Your task to perform on an android device: What is the recent news? Image 0: 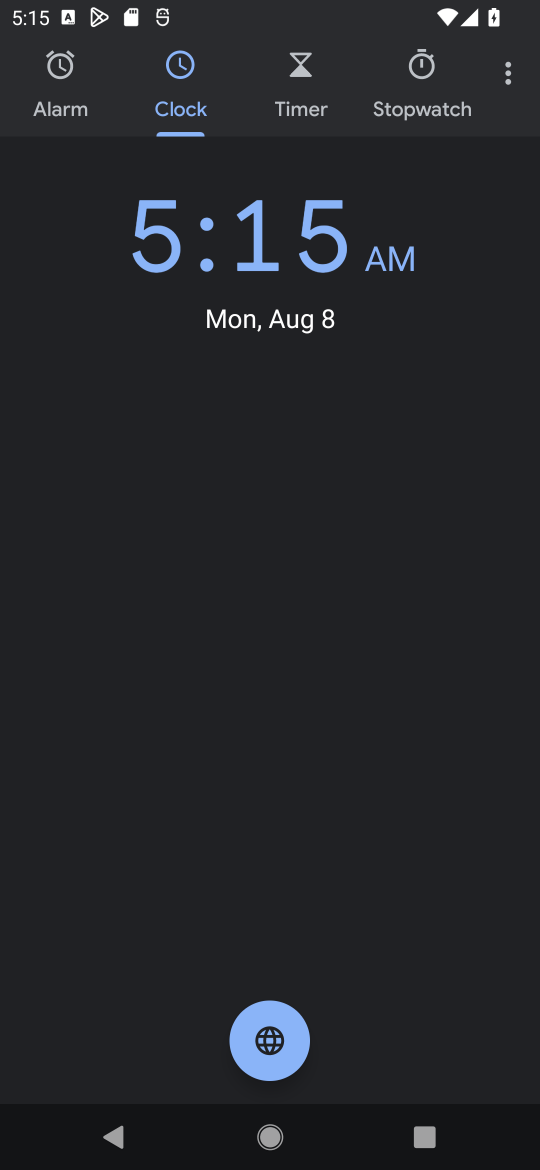
Step 0: press home button
Your task to perform on an android device: What is the recent news? Image 1: 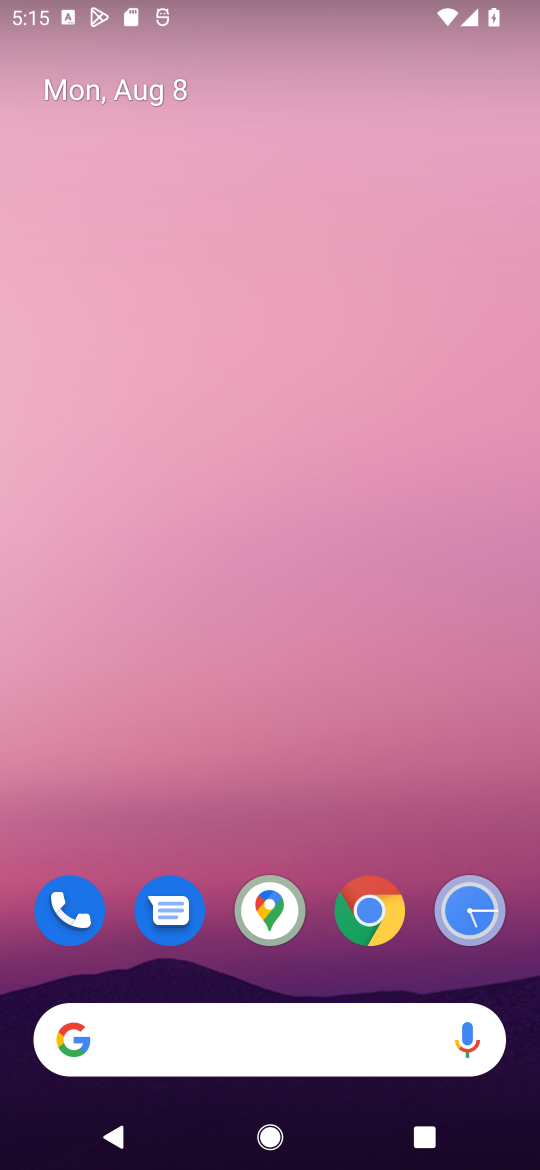
Step 1: click (199, 1033)
Your task to perform on an android device: What is the recent news? Image 2: 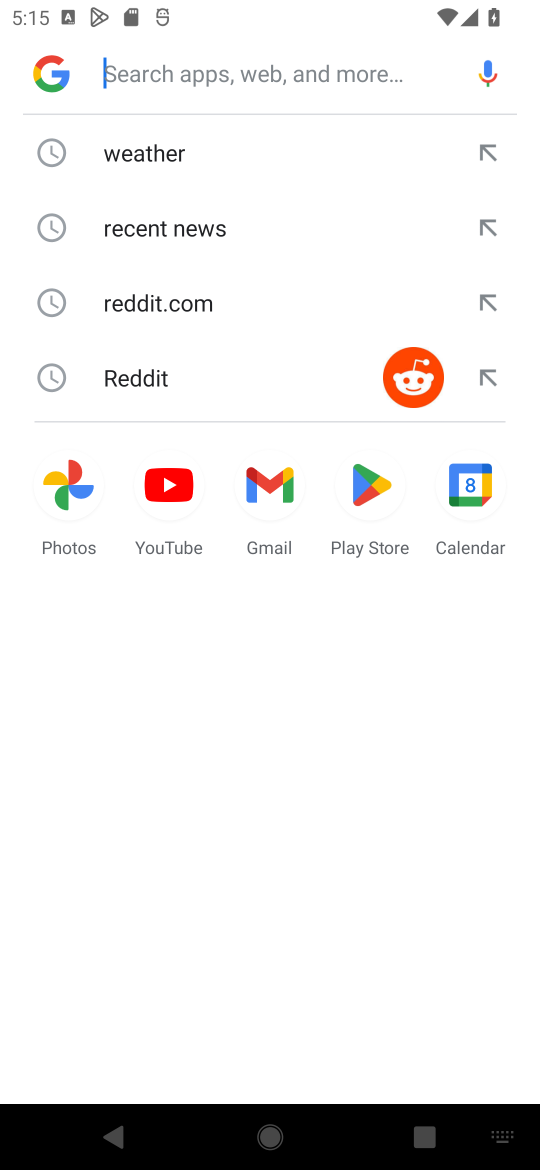
Step 2: click (172, 238)
Your task to perform on an android device: What is the recent news? Image 3: 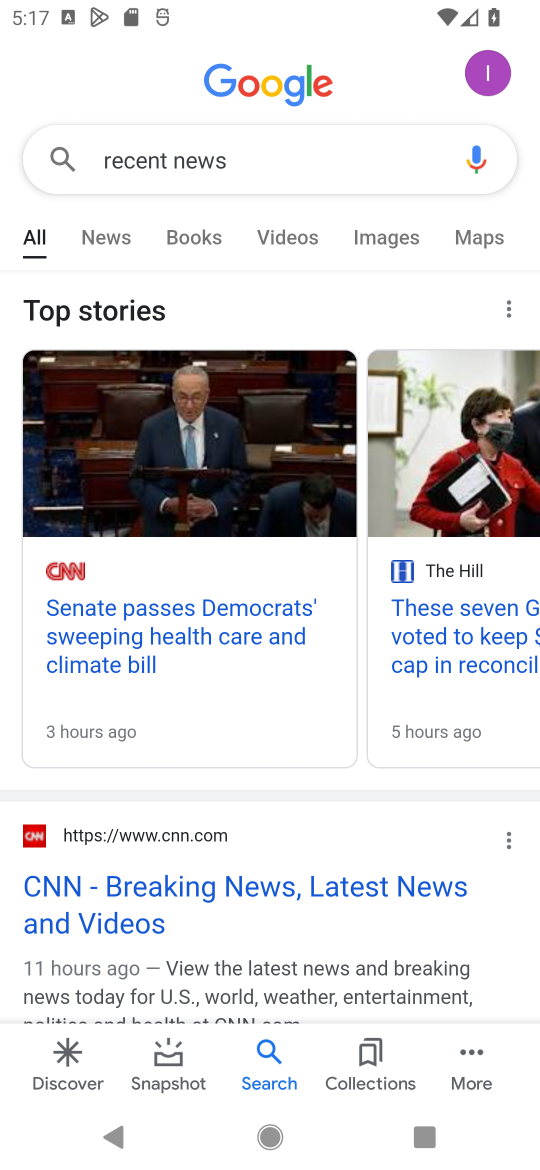
Step 3: click (37, 133)
Your task to perform on an android device: What is the recent news? Image 4: 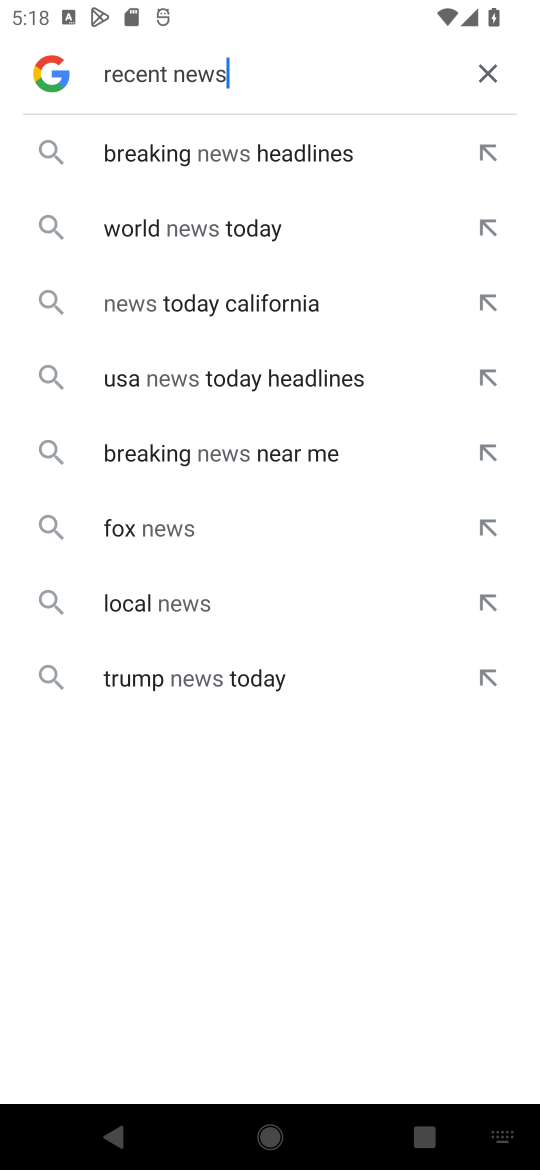
Step 4: task complete